Your task to perform on an android device: uninstall "Instagram" Image 0: 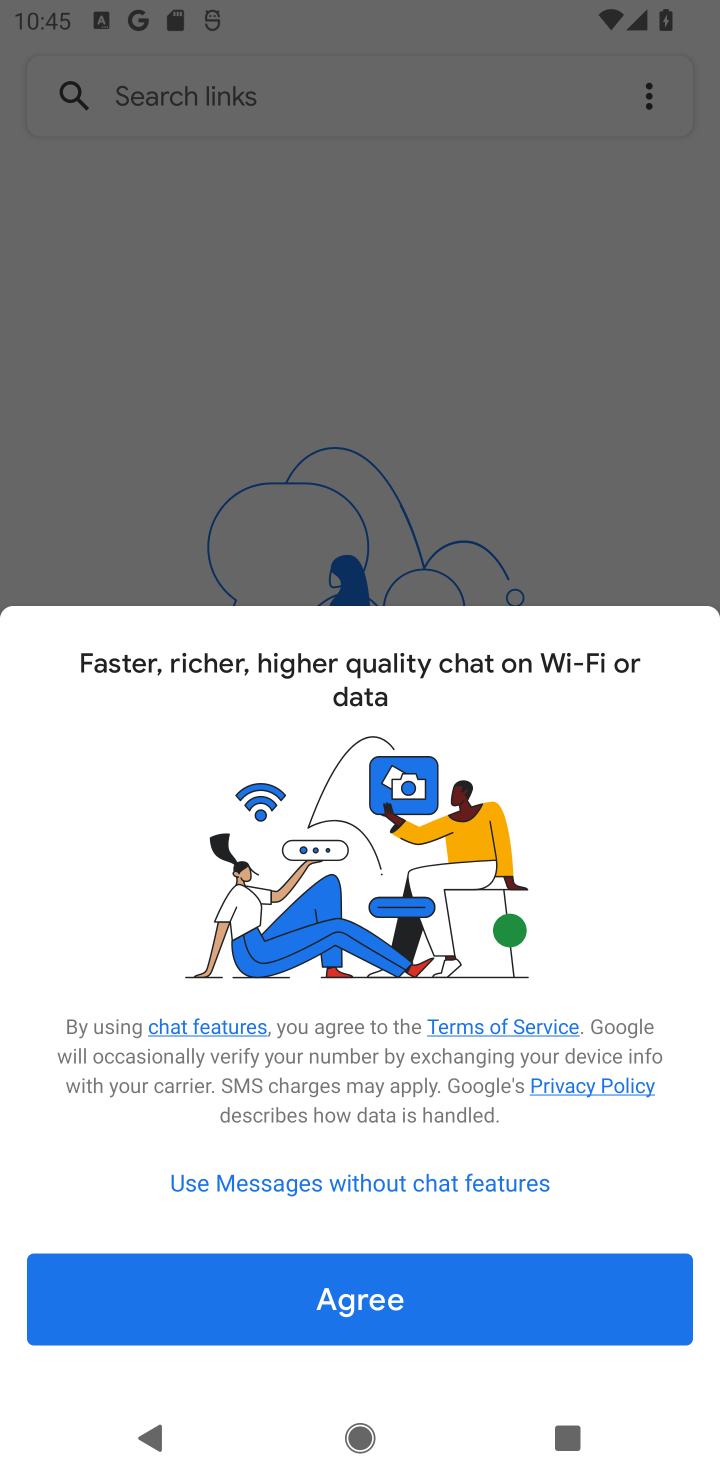
Step 0: press home button
Your task to perform on an android device: uninstall "Instagram" Image 1: 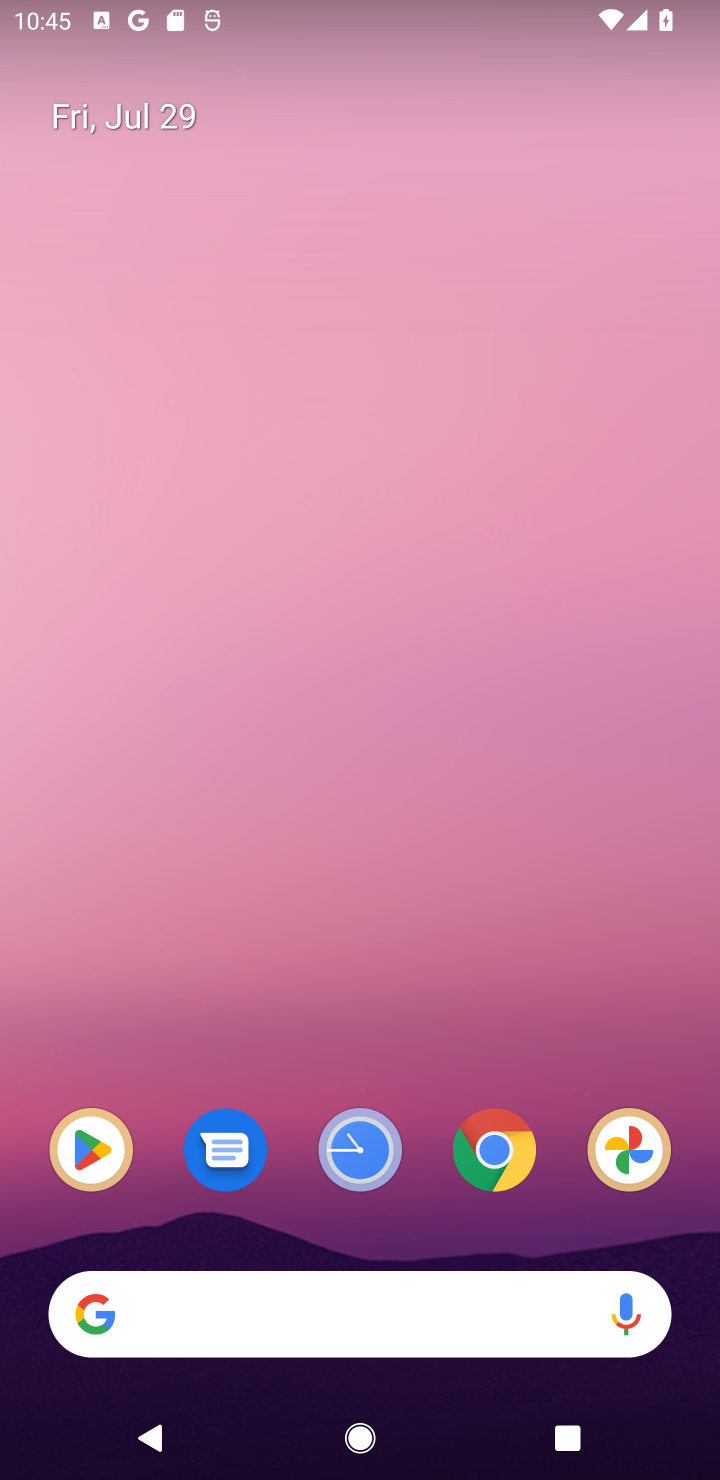
Step 1: click (113, 1147)
Your task to perform on an android device: uninstall "Instagram" Image 2: 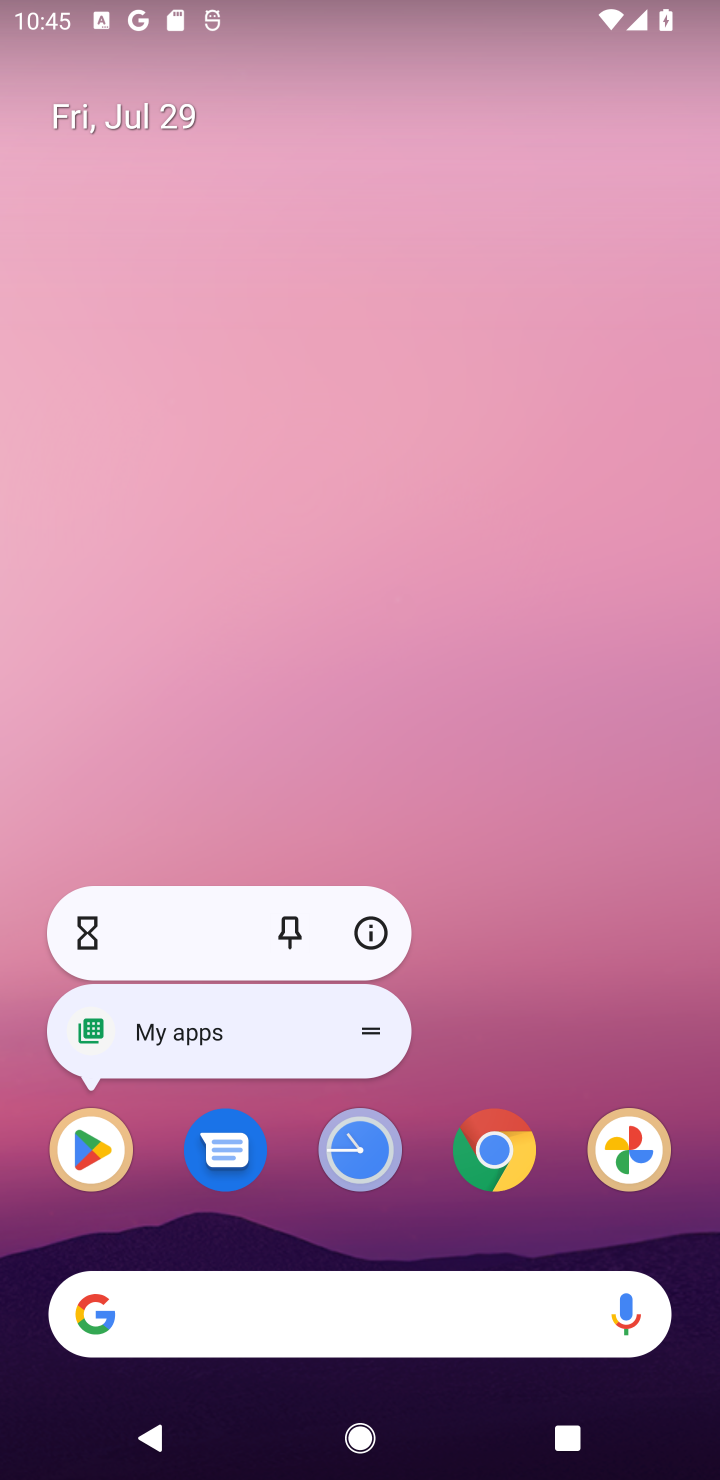
Step 2: click (93, 1154)
Your task to perform on an android device: uninstall "Instagram" Image 3: 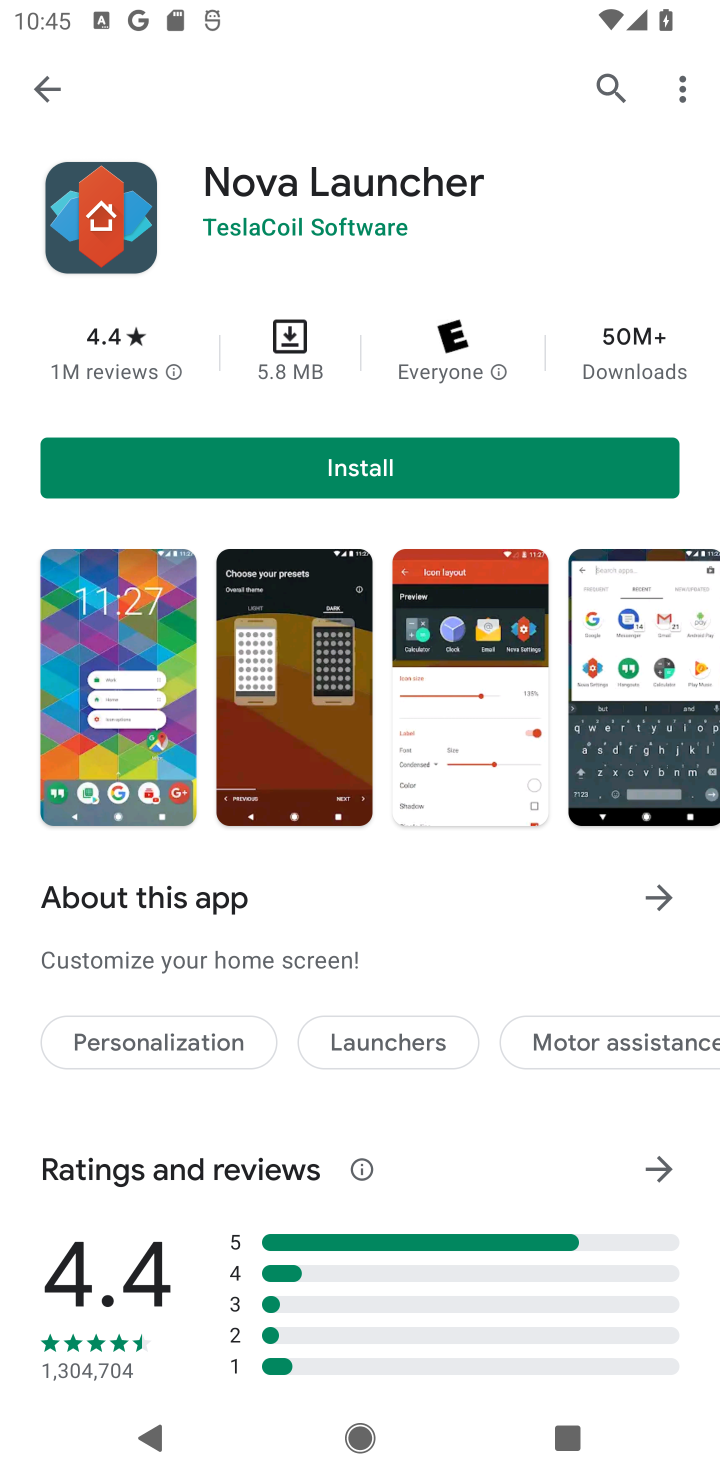
Step 3: click (597, 68)
Your task to perform on an android device: uninstall "Instagram" Image 4: 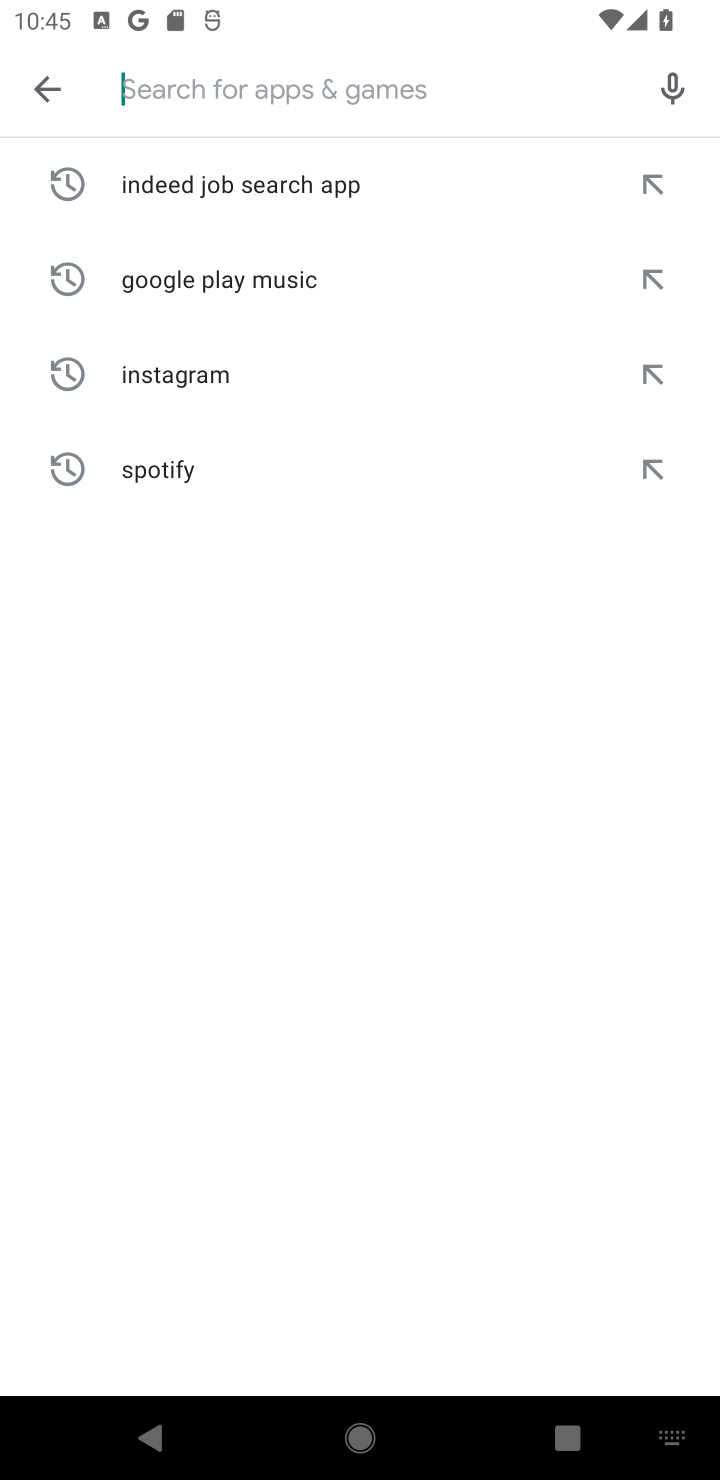
Step 4: click (298, 106)
Your task to perform on an android device: uninstall "Instagram" Image 5: 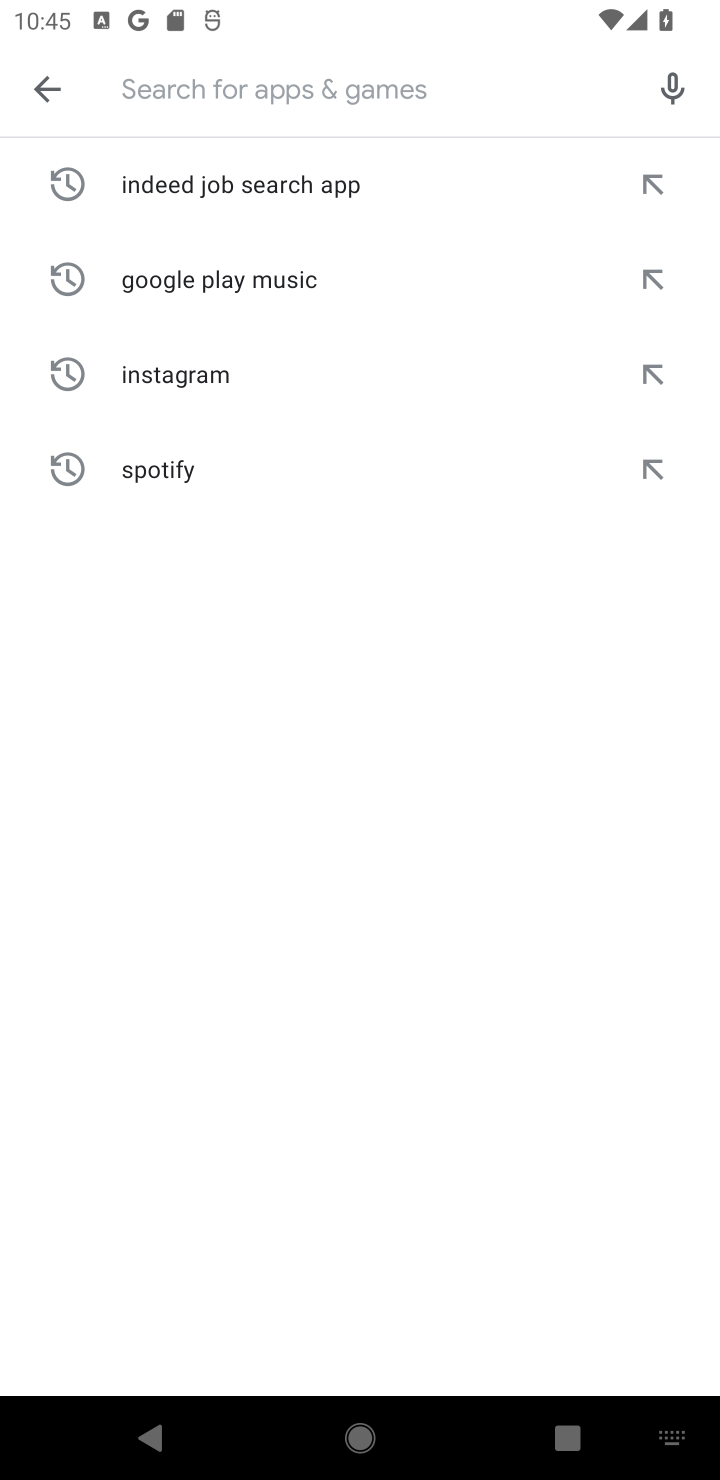
Step 5: type "instagram"
Your task to perform on an android device: uninstall "Instagram" Image 6: 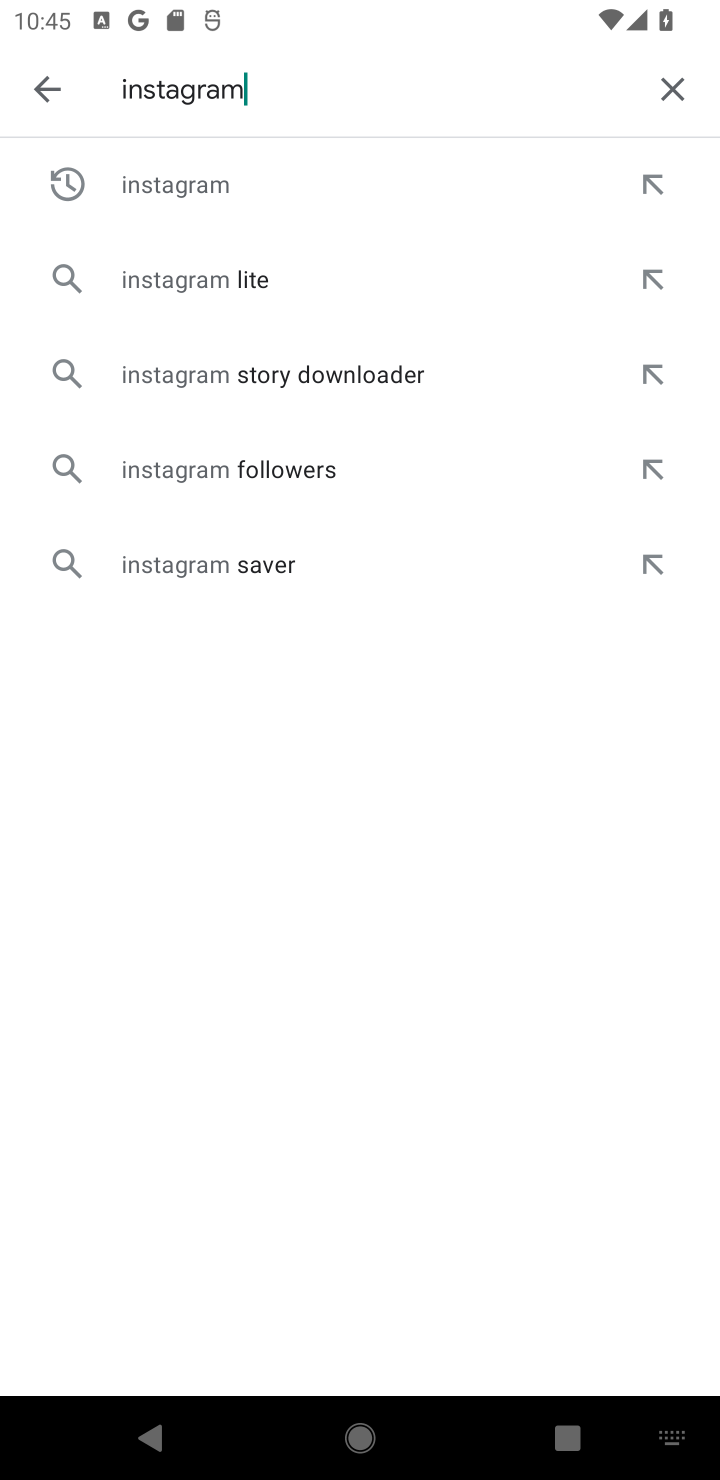
Step 6: click (182, 165)
Your task to perform on an android device: uninstall "Instagram" Image 7: 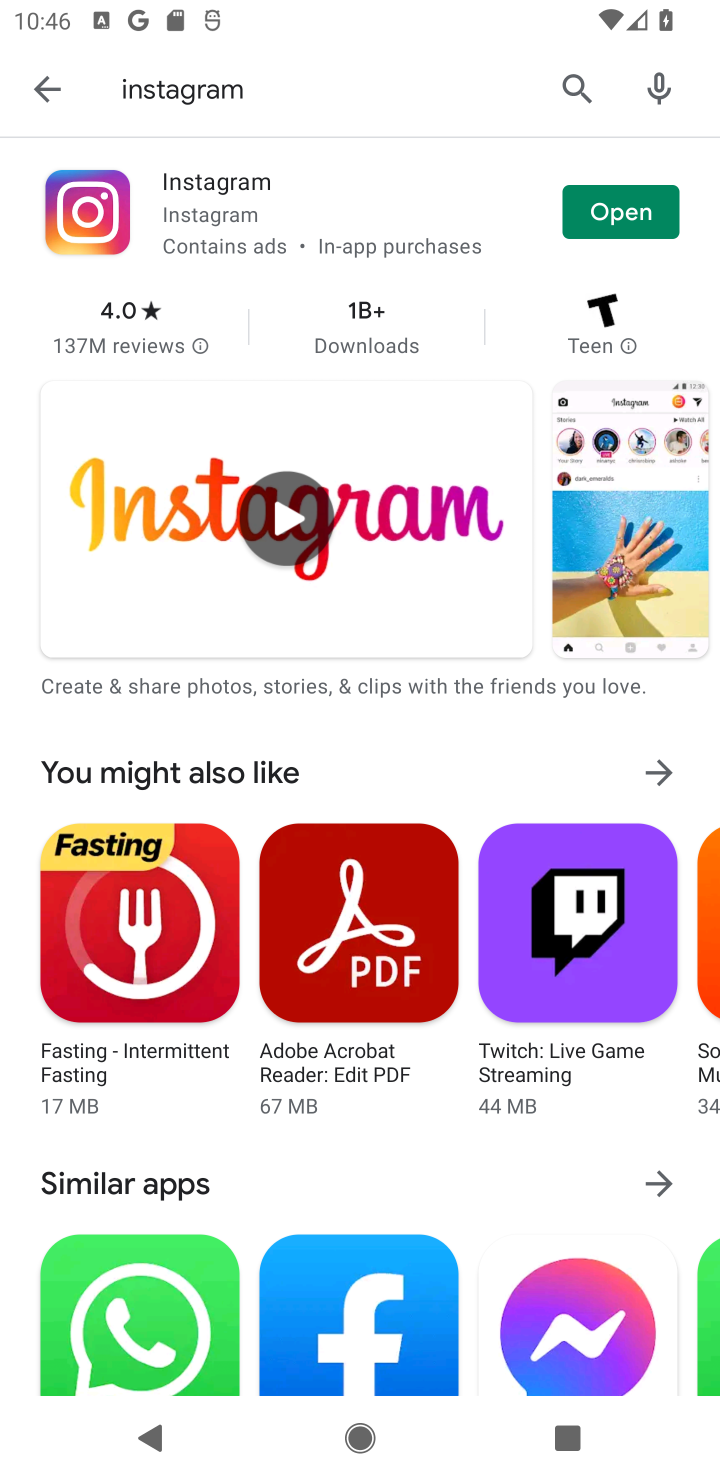
Step 7: click (232, 204)
Your task to perform on an android device: uninstall "Instagram" Image 8: 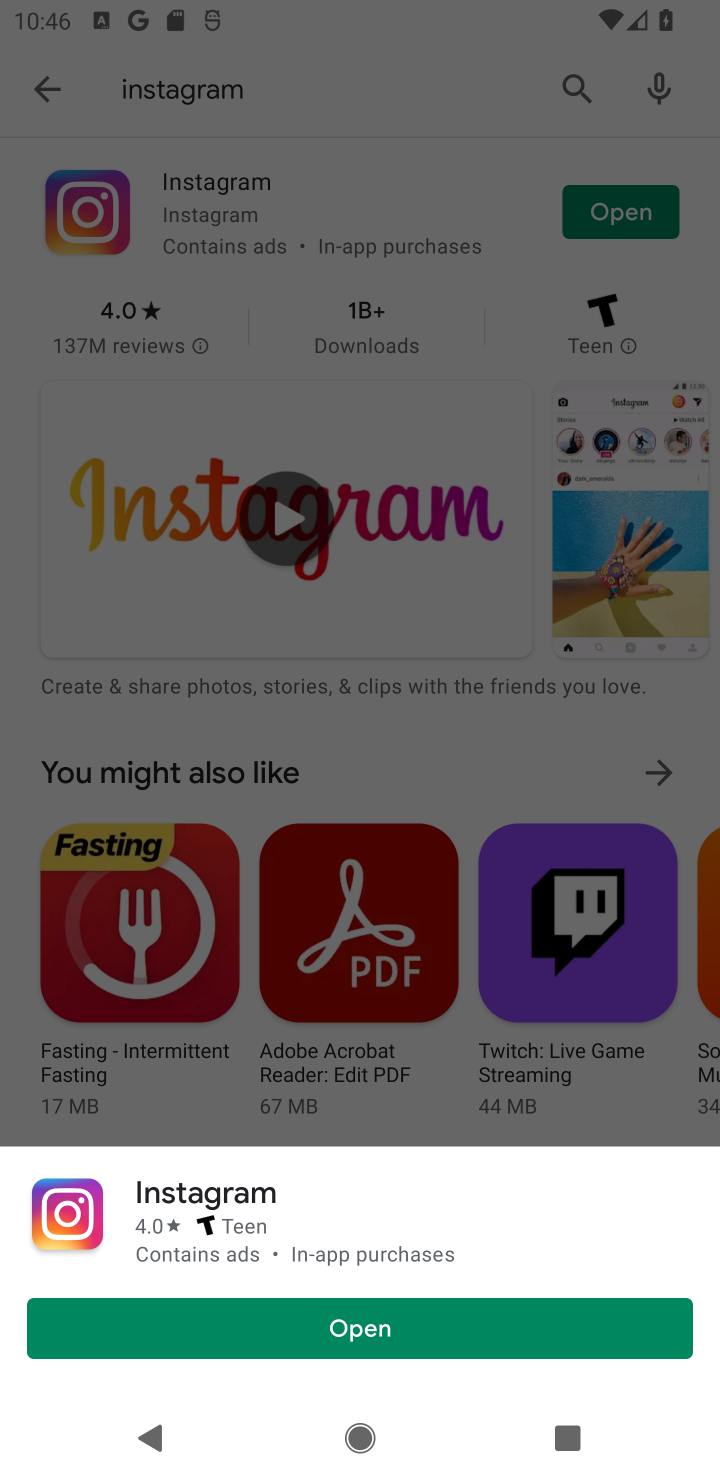
Step 8: click (245, 233)
Your task to perform on an android device: uninstall "Instagram" Image 9: 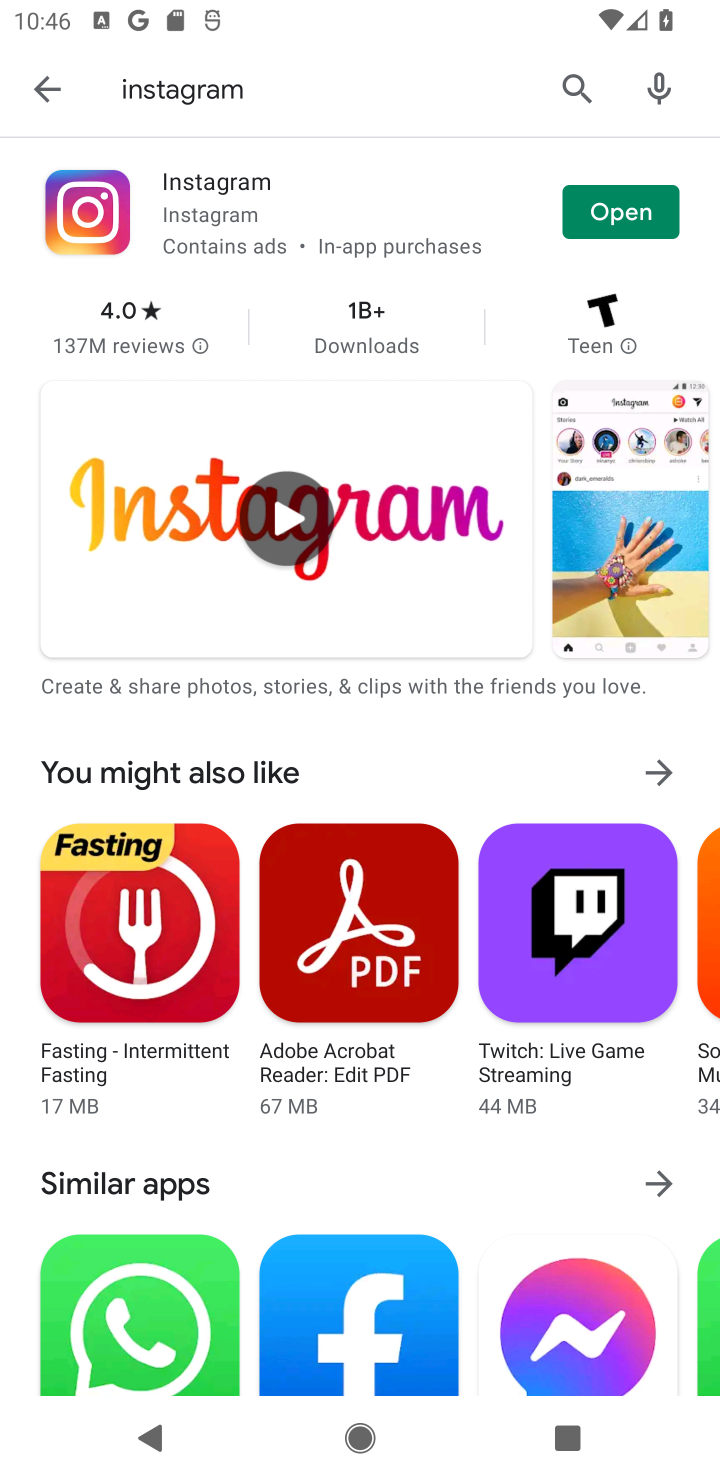
Step 9: click (234, 212)
Your task to perform on an android device: uninstall "Instagram" Image 10: 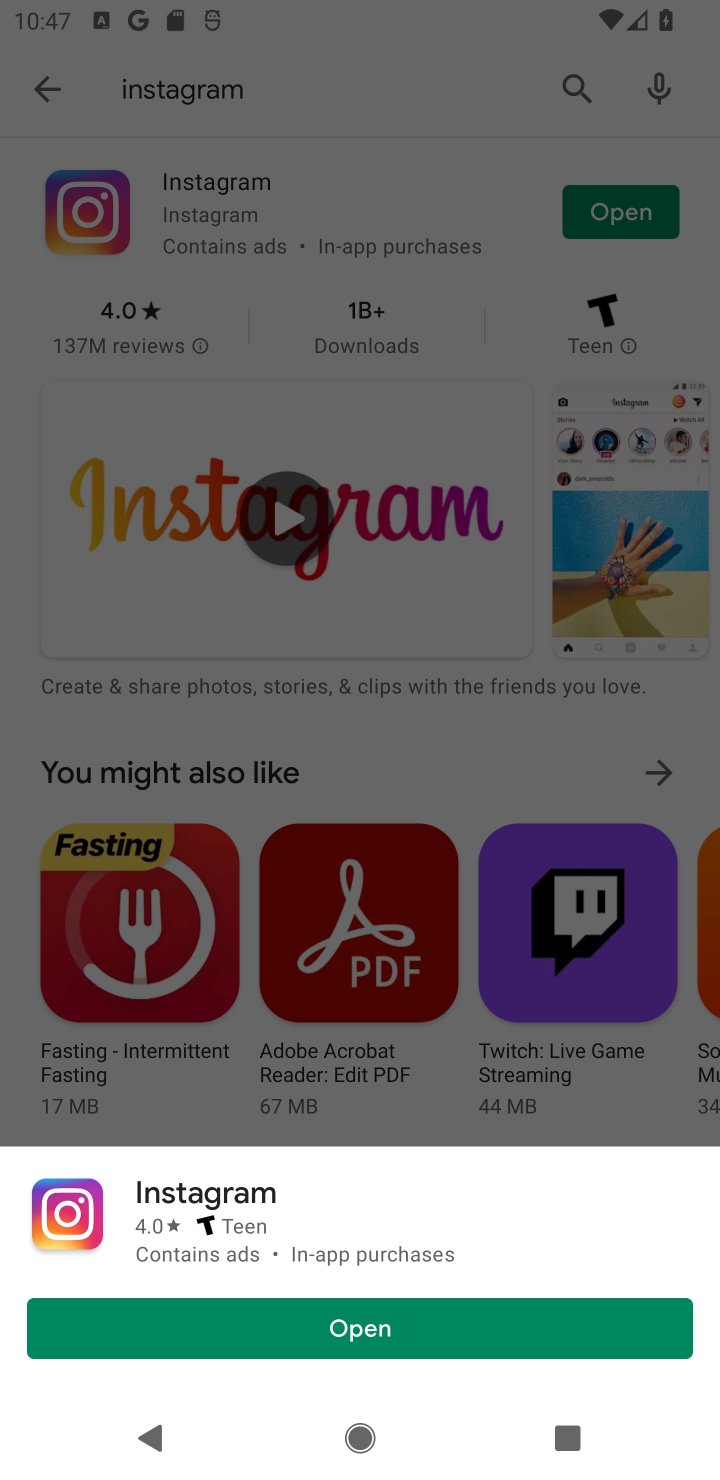
Step 10: task complete